Your task to perform on an android device: Toggle the flashlight Image 0: 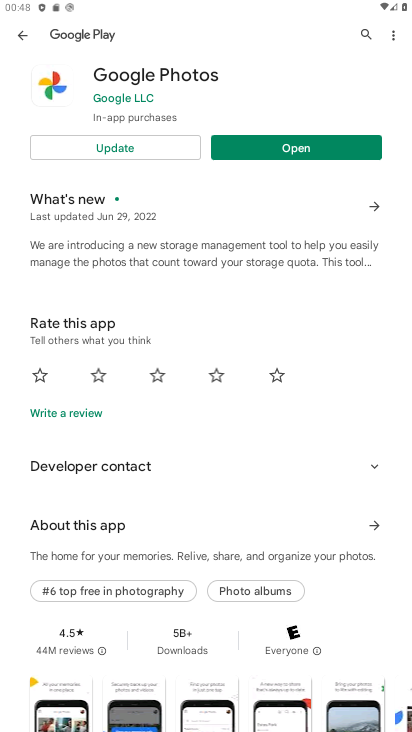
Step 0: task impossible